Your task to perform on an android device: Open the stopwatch Image 0: 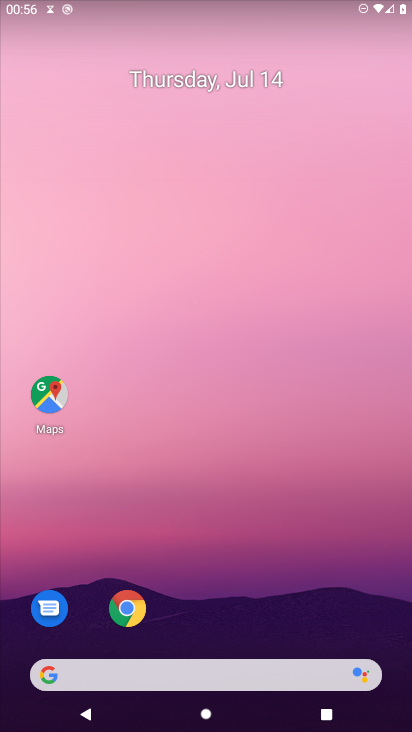
Step 0: press home button
Your task to perform on an android device: Open the stopwatch Image 1: 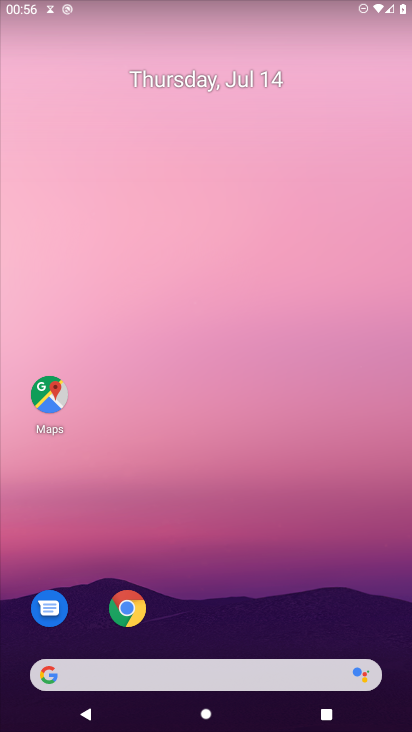
Step 1: drag from (335, 594) to (339, 103)
Your task to perform on an android device: Open the stopwatch Image 2: 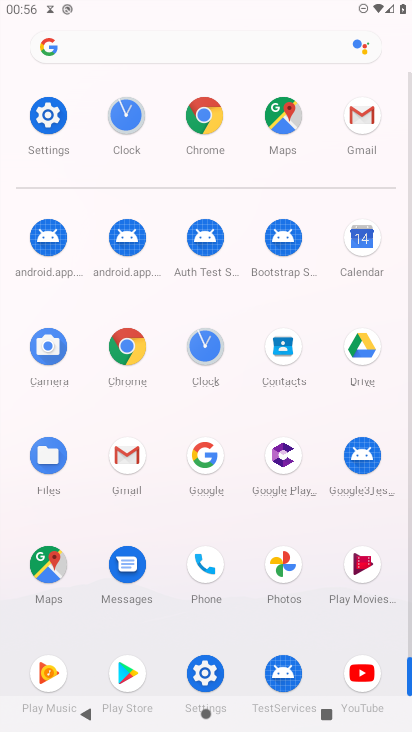
Step 2: click (197, 340)
Your task to perform on an android device: Open the stopwatch Image 3: 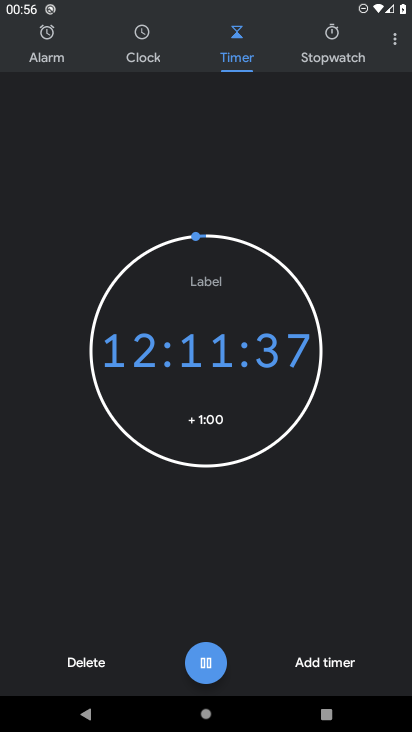
Step 3: click (324, 45)
Your task to perform on an android device: Open the stopwatch Image 4: 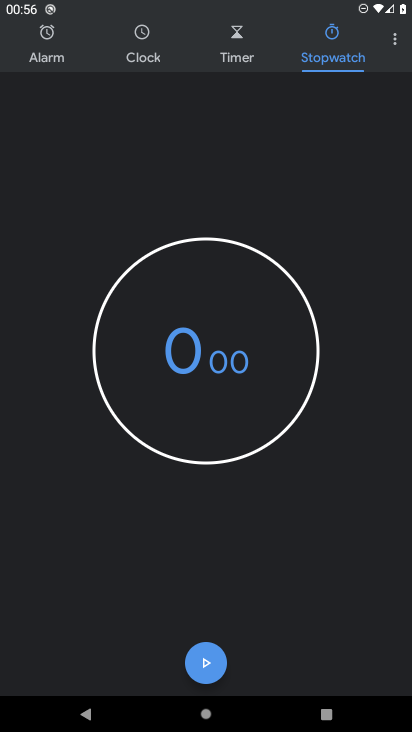
Step 4: click (198, 669)
Your task to perform on an android device: Open the stopwatch Image 5: 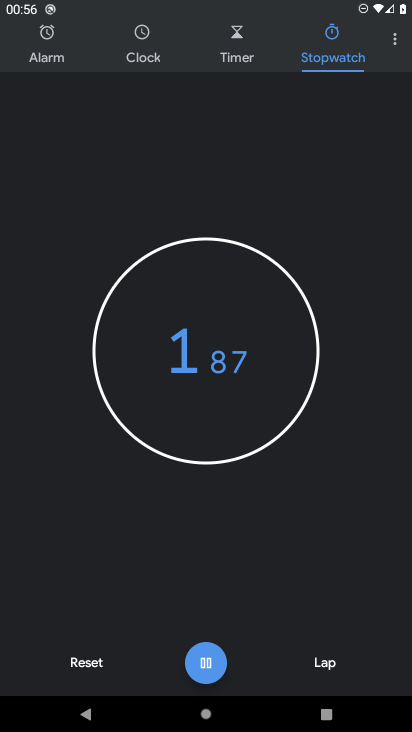
Step 5: click (201, 672)
Your task to perform on an android device: Open the stopwatch Image 6: 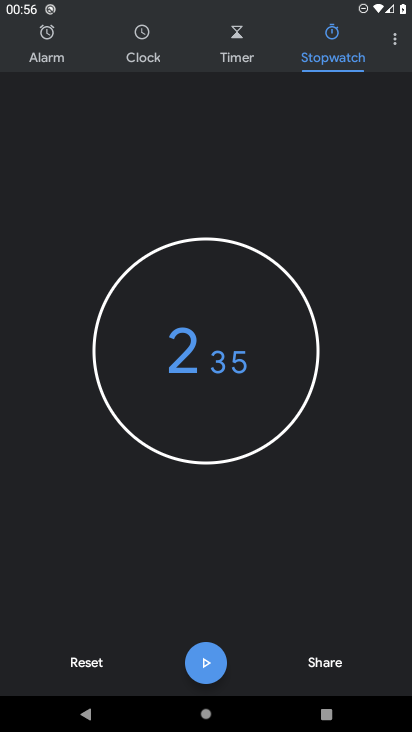
Step 6: task complete